Your task to perform on an android device: open the mobile data screen to see how much data has been used Image 0: 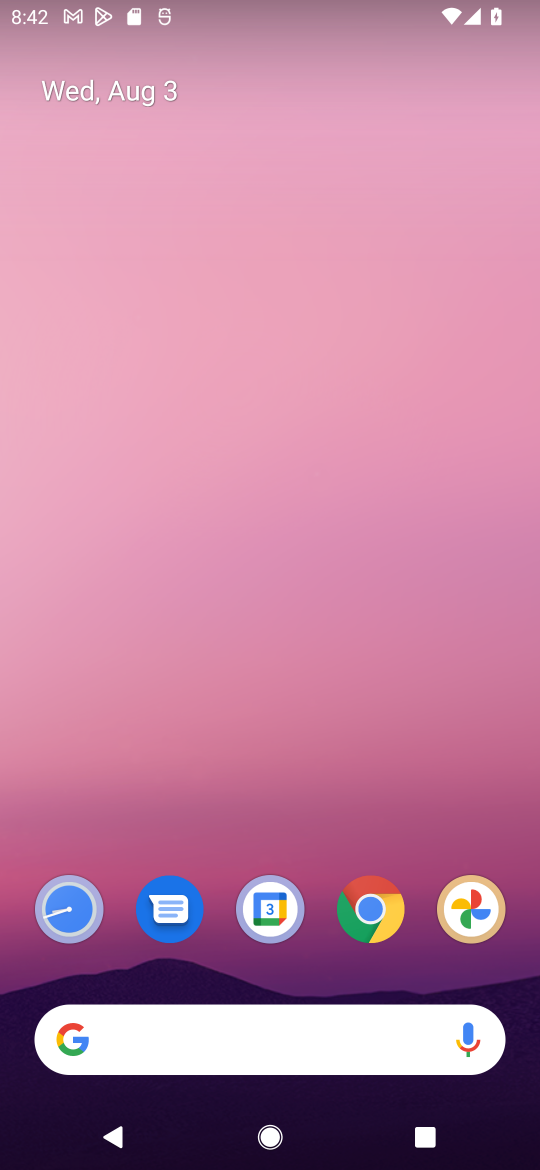
Step 0: press home button
Your task to perform on an android device: open the mobile data screen to see how much data has been used Image 1: 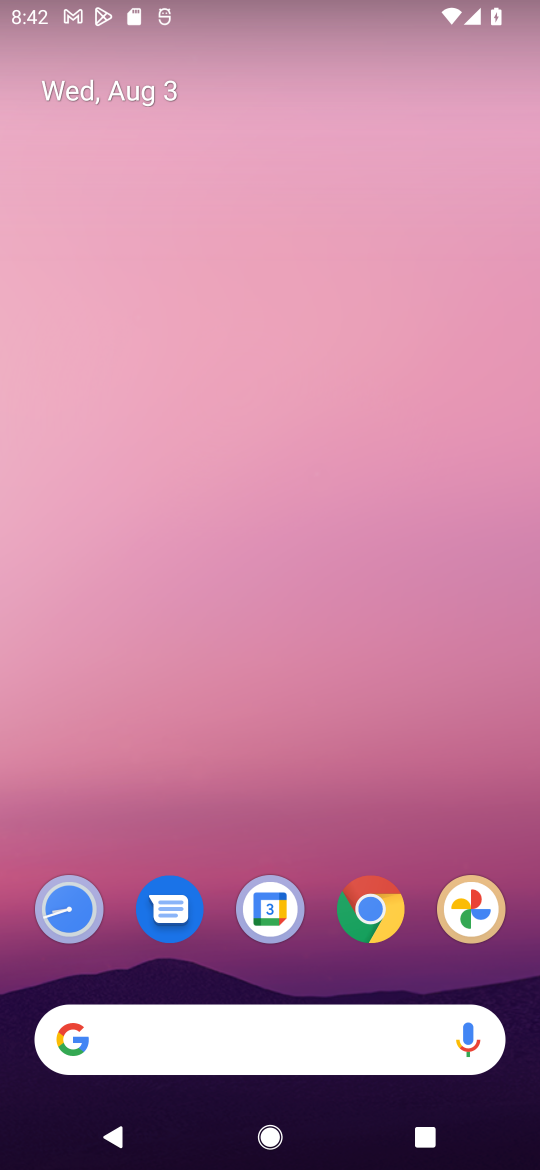
Step 1: drag from (405, 825) to (412, 309)
Your task to perform on an android device: open the mobile data screen to see how much data has been used Image 2: 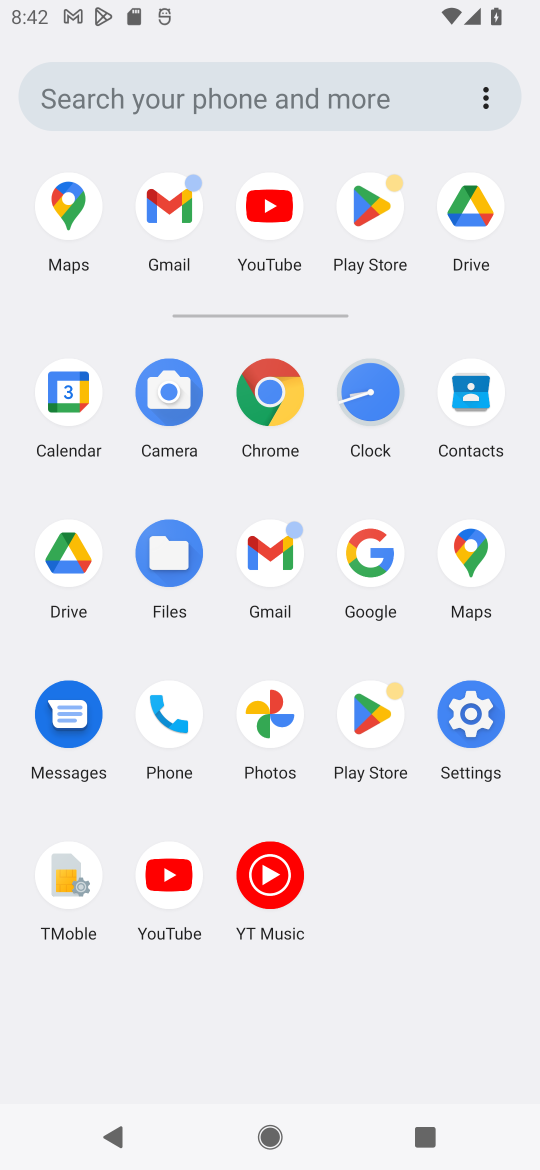
Step 2: click (273, 391)
Your task to perform on an android device: open the mobile data screen to see how much data has been used Image 3: 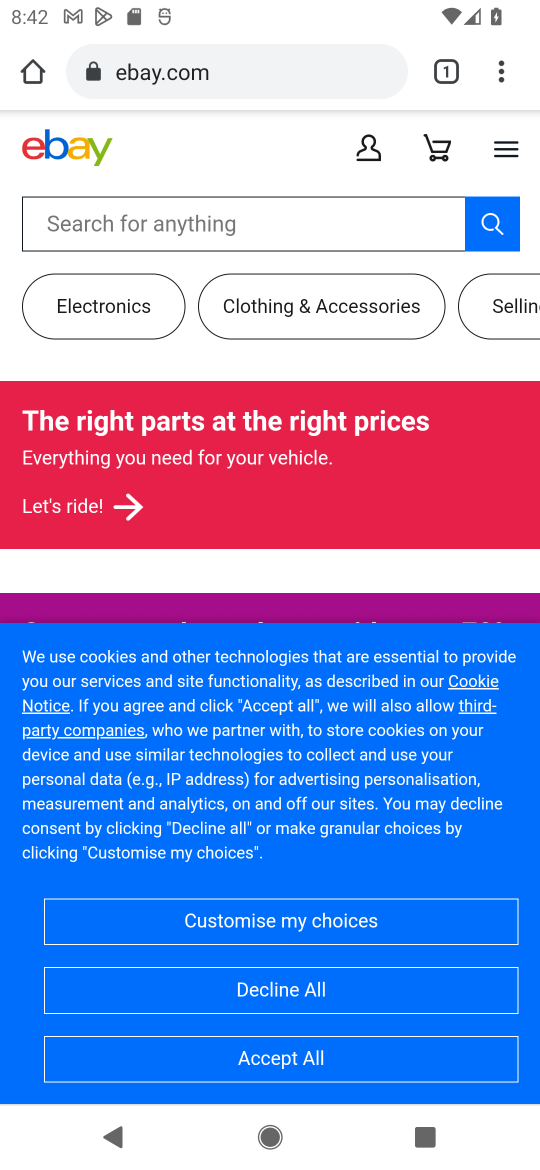
Step 3: press home button
Your task to perform on an android device: open the mobile data screen to see how much data has been used Image 4: 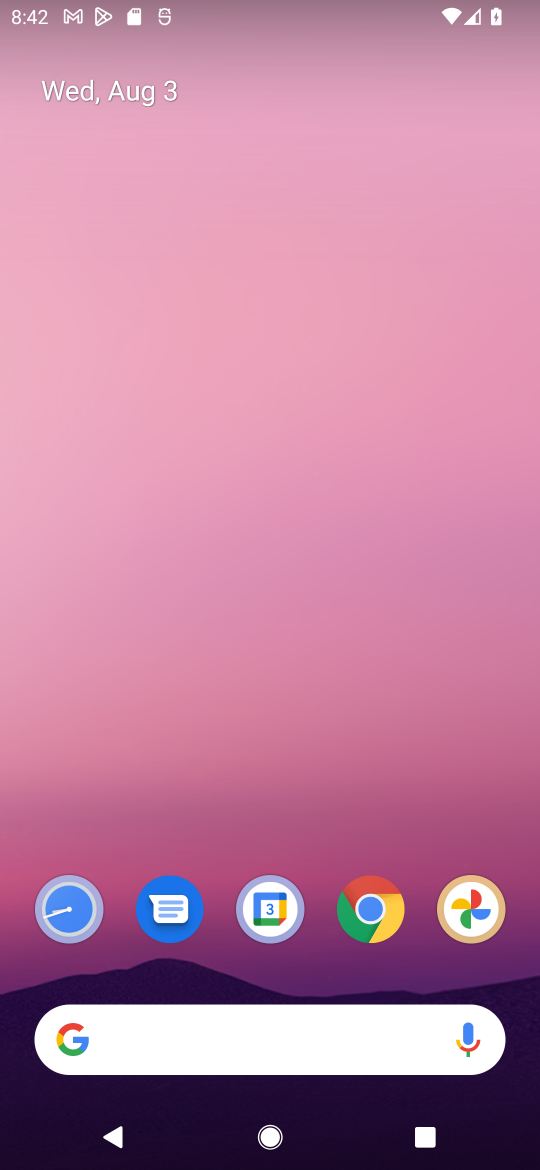
Step 4: drag from (406, 780) to (407, 311)
Your task to perform on an android device: open the mobile data screen to see how much data has been used Image 5: 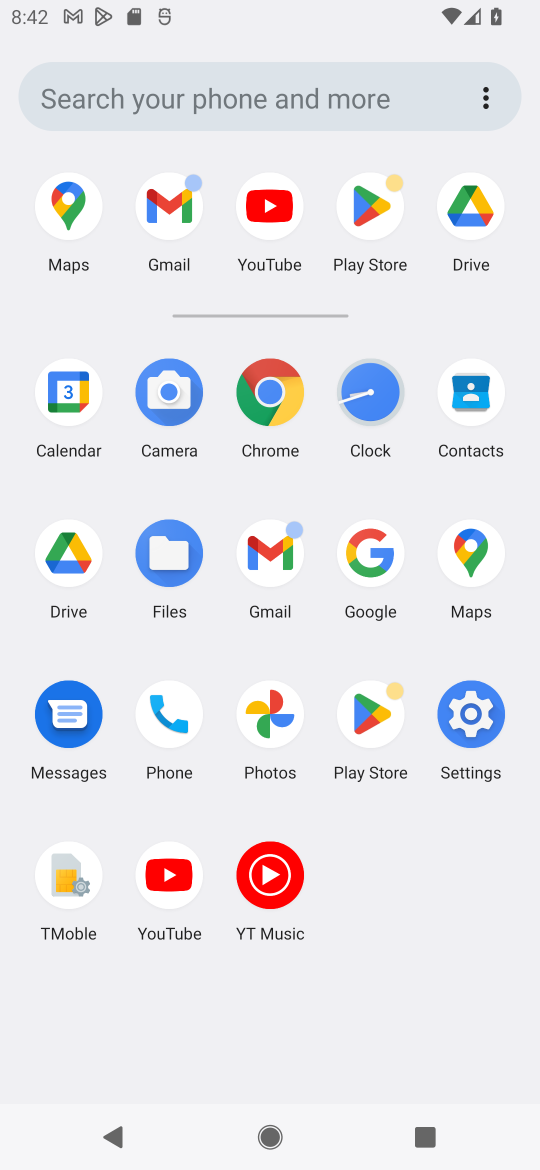
Step 5: click (472, 718)
Your task to perform on an android device: open the mobile data screen to see how much data has been used Image 6: 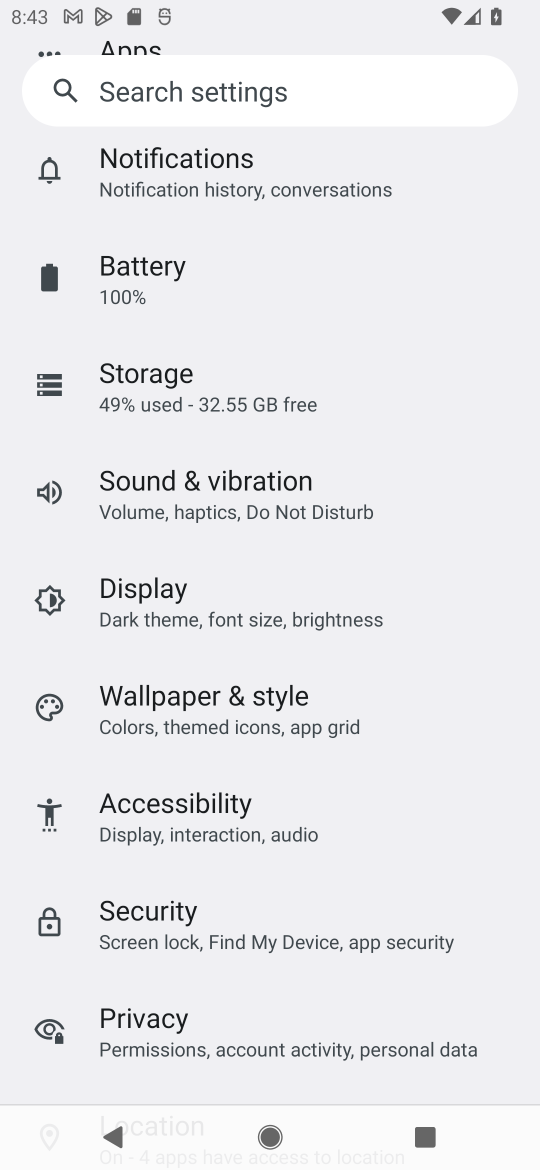
Step 6: drag from (485, 345) to (478, 583)
Your task to perform on an android device: open the mobile data screen to see how much data has been used Image 7: 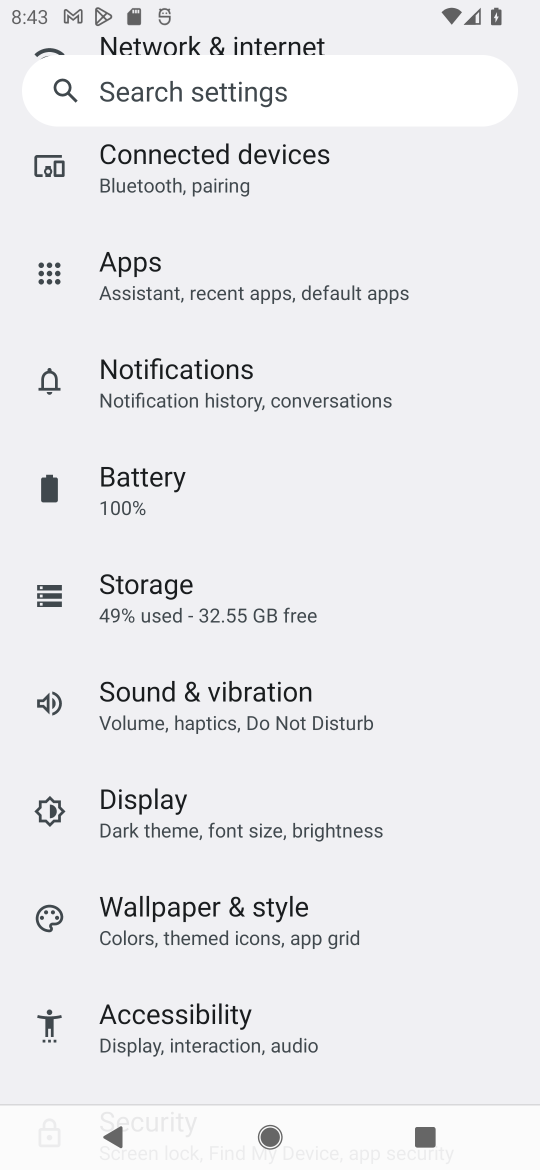
Step 7: drag from (454, 337) to (450, 605)
Your task to perform on an android device: open the mobile data screen to see how much data has been used Image 8: 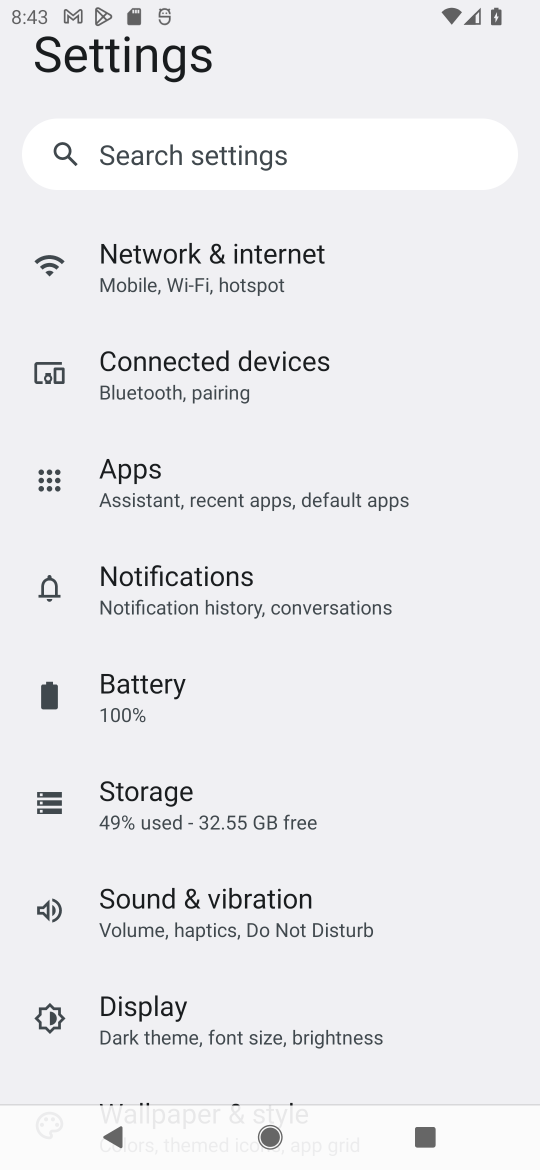
Step 8: drag from (459, 421) to (462, 653)
Your task to perform on an android device: open the mobile data screen to see how much data has been used Image 9: 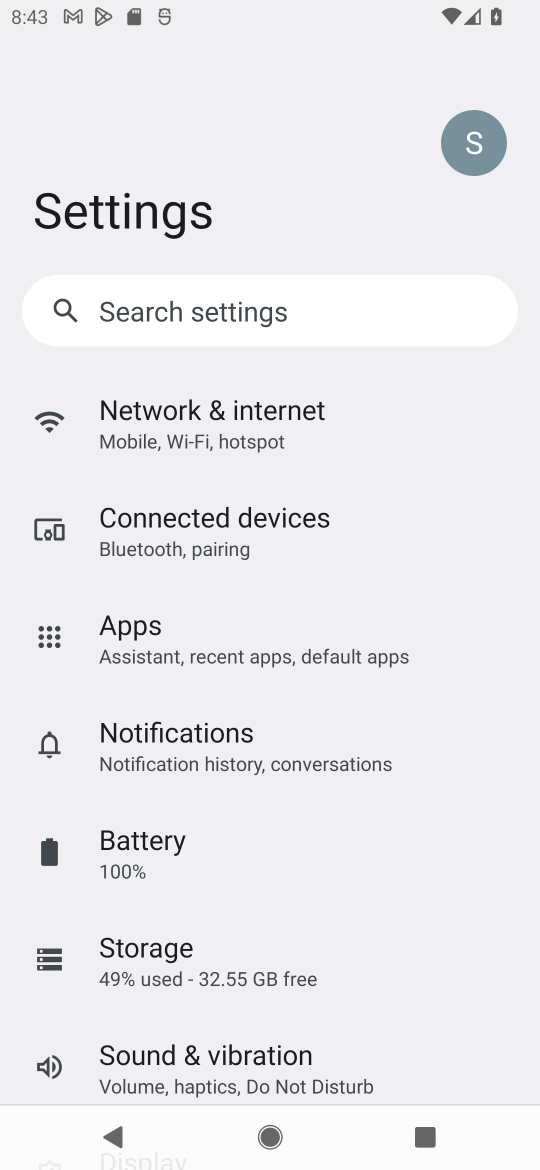
Step 9: drag from (455, 461) to (466, 735)
Your task to perform on an android device: open the mobile data screen to see how much data has been used Image 10: 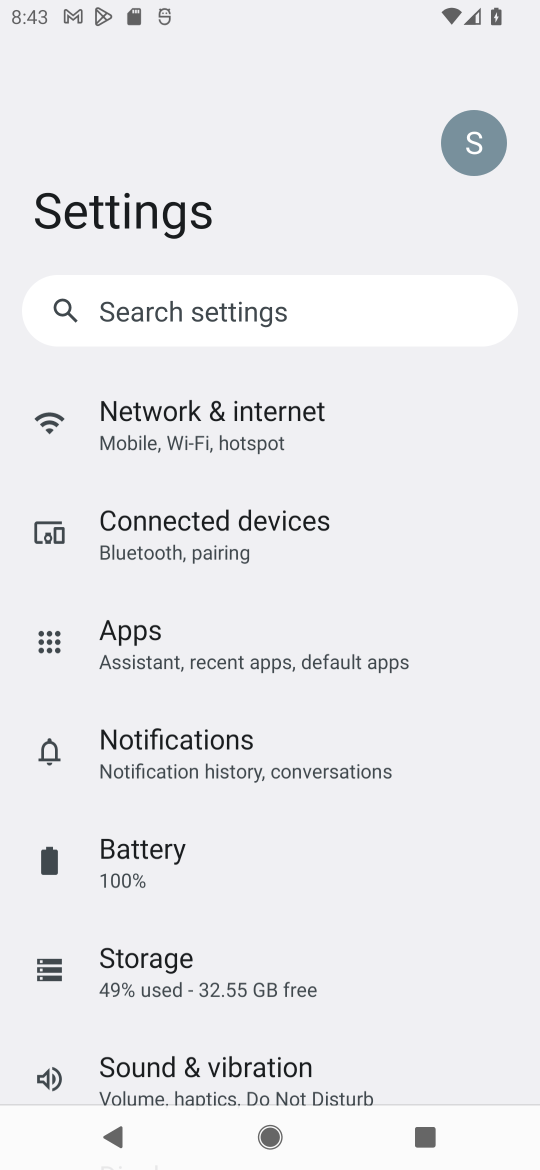
Step 10: click (332, 403)
Your task to perform on an android device: open the mobile data screen to see how much data has been used Image 11: 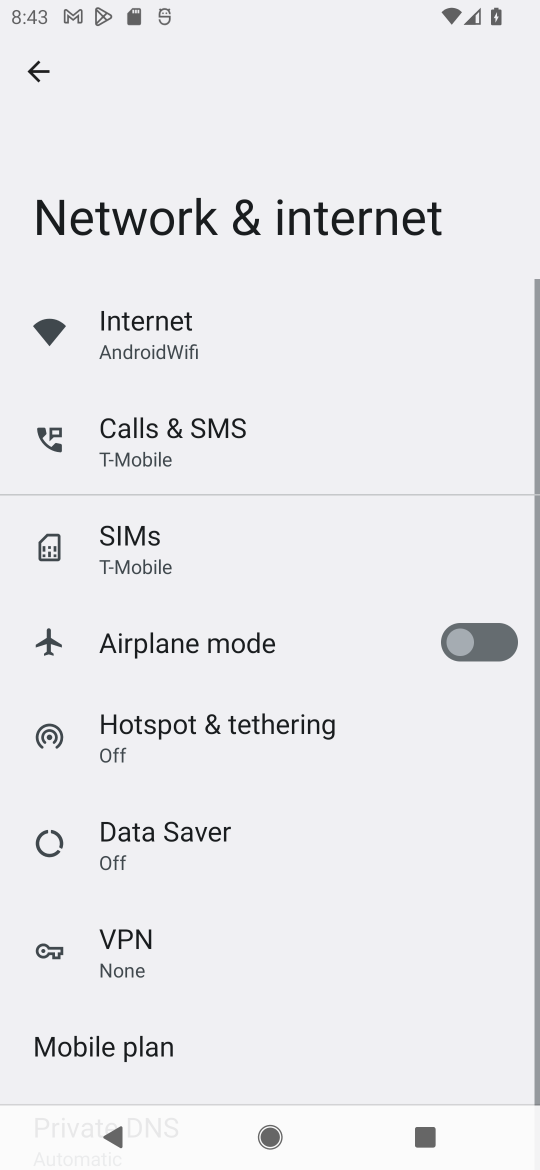
Step 11: drag from (319, 806) to (352, 680)
Your task to perform on an android device: open the mobile data screen to see how much data has been used Image 12: 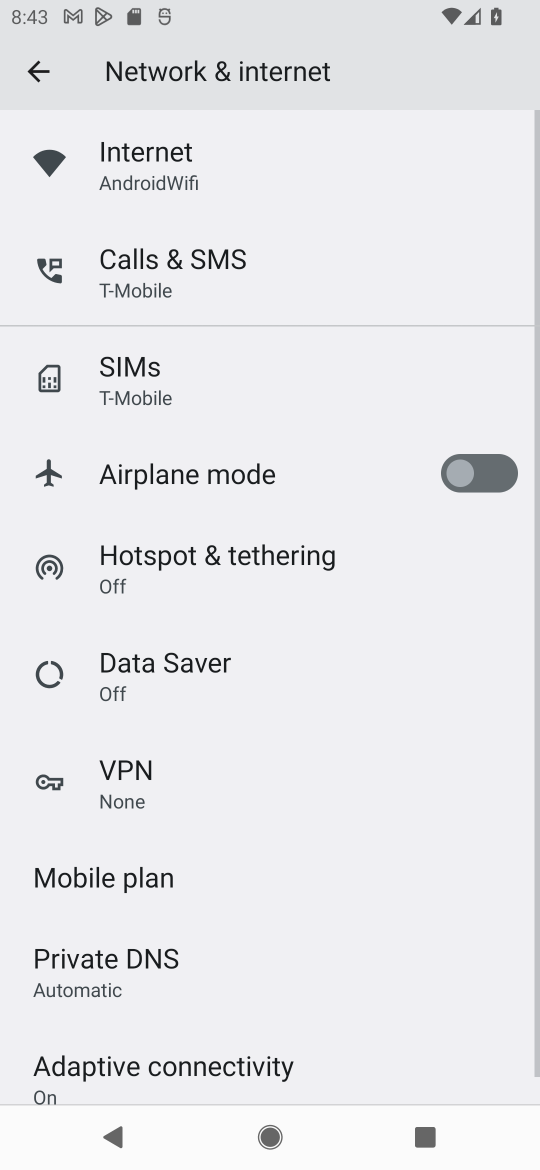
Step 12: drag from (330, 869) to (379, 641)
Your task to perform on an android device: open the mobile data screen to see how much data has been used Image 13: 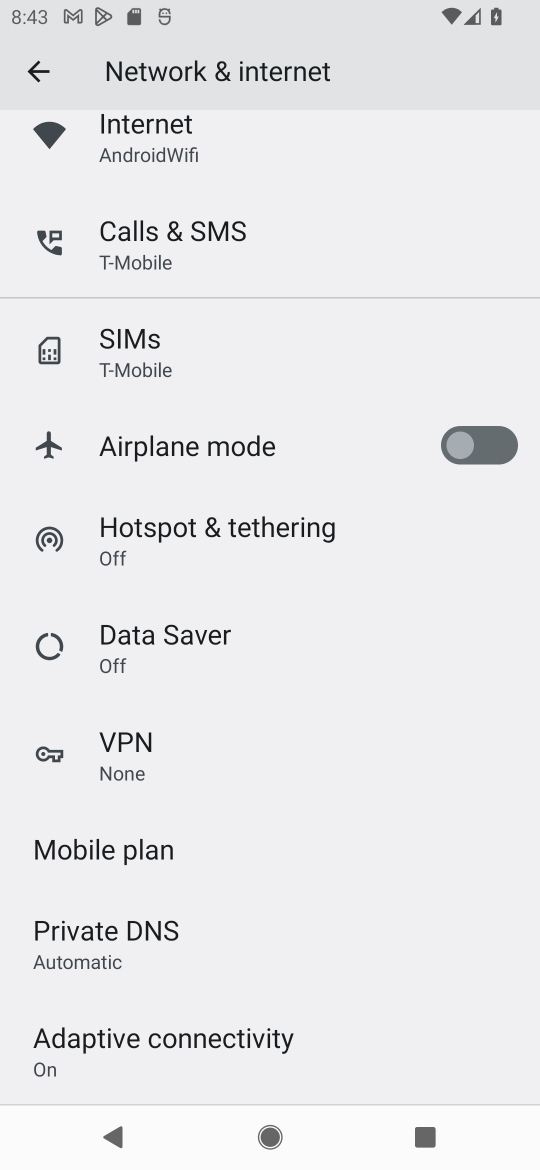
Step 13: drag from (411, 512) to (410, 746)
Your task to perform on an android device: open the mobile data screen to see how much data has been used Image 14: 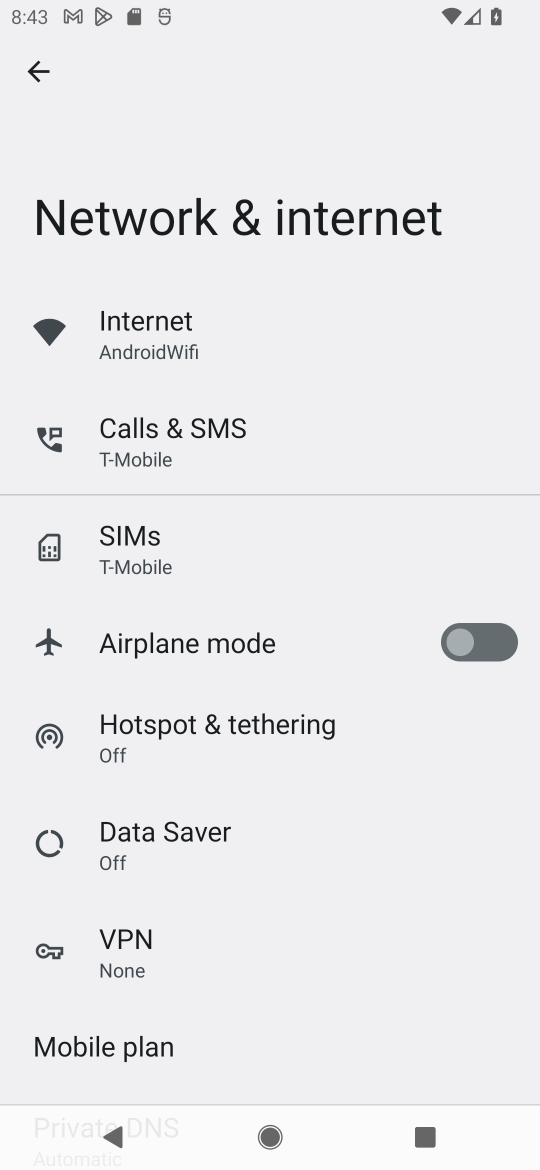
Step 14: click (179, 338)
Your task to perform on an android device: open the mobile data screen to see how much data has been used Image 15: 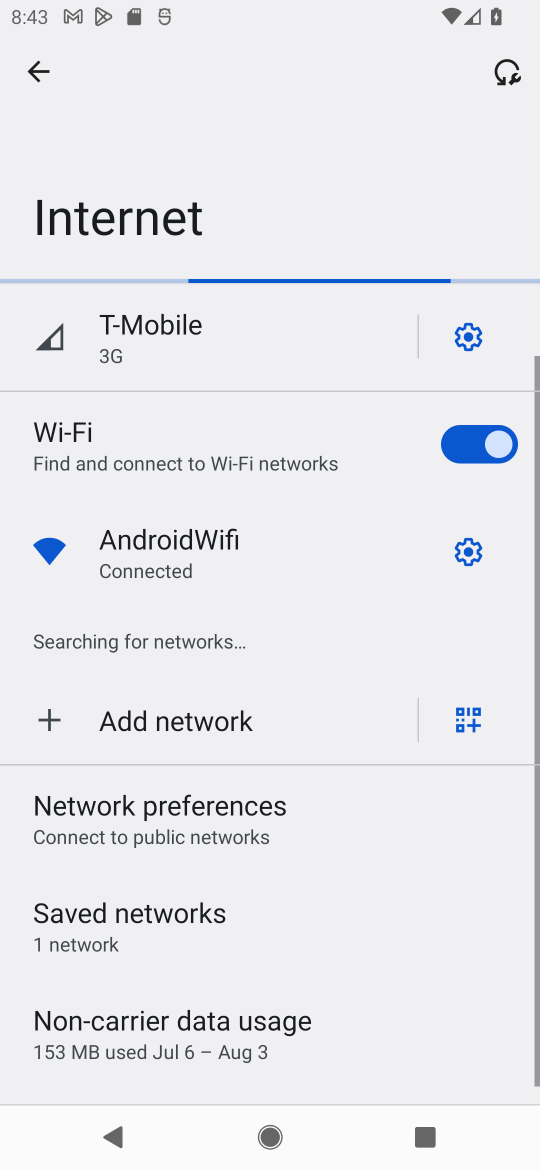
Step 15: click (222, 1044)
Your task to perform on an android device: open the mobile data screen to see how much data has been used Image 16: 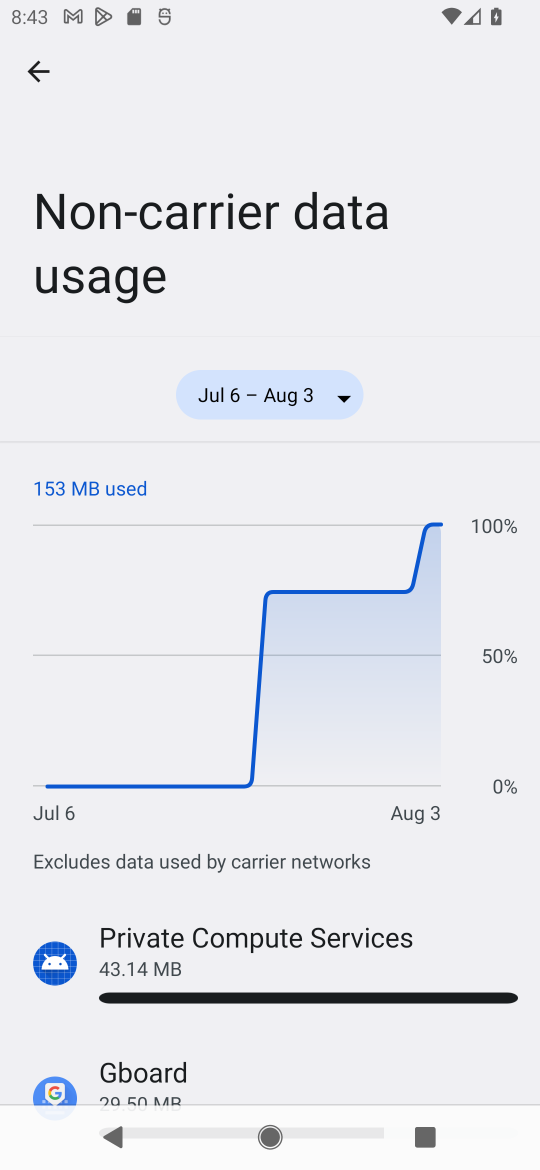
Step 16: task complete